Your task to perform on an android device: turn off priority inbox in the gmail app Image 0: 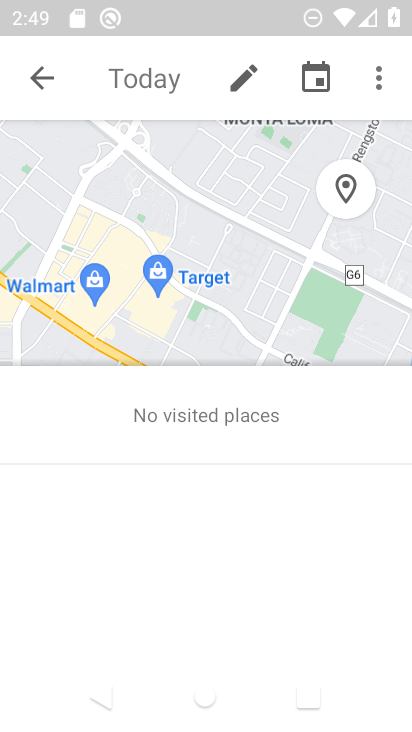
Step 0: press back button
Your task to perform on an android device: turn off priority inbox in the gmail app Image 1: 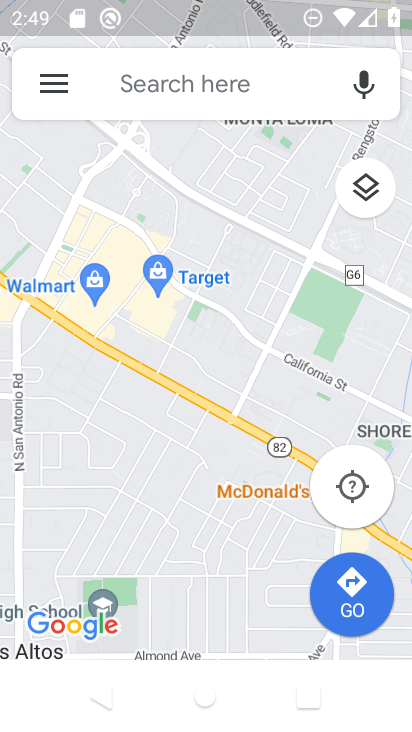
Step 1: press back button
Your task to perform on an android device: turn off priority inbox in the gmail app Image 2: 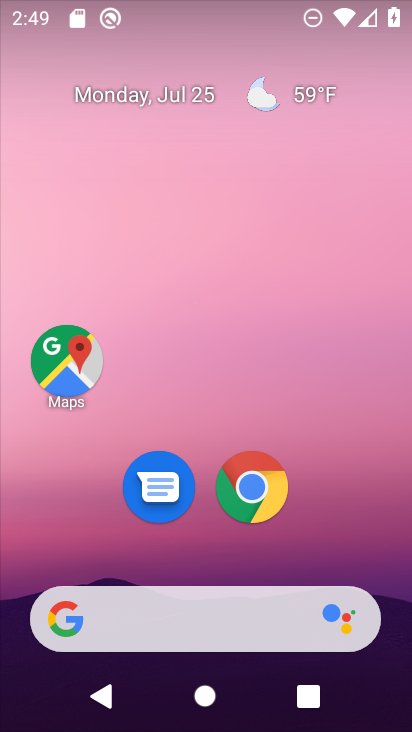
Step 2: drag from (194, 562) to (198, 26)
Your task to perform on an android device: turn off priority inbox in the gmail app Image 3: 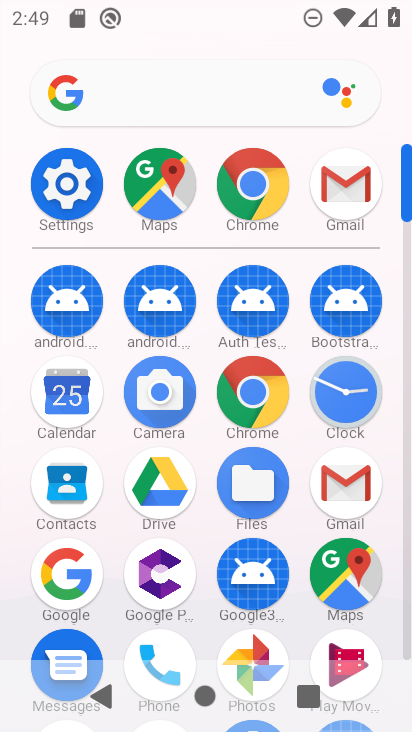
Step 3: click (342, 180)
Your task to perform on an android device: turn off priority inbox in the gmail app Image 4: 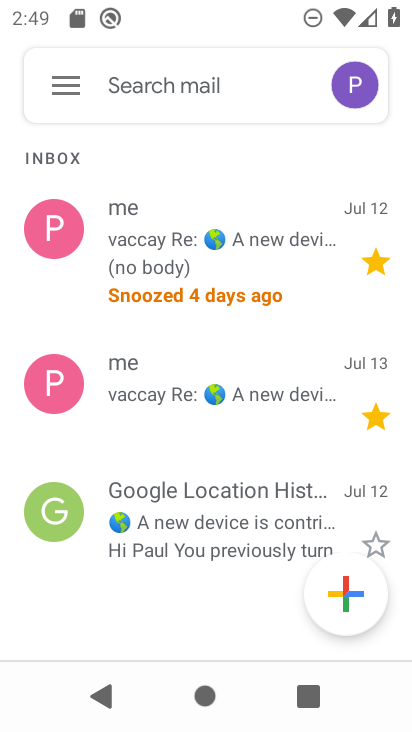
Step 4: click (56, 58)
Your task to perform on an android device: turn off priority inbox in the gmail app Image 5: 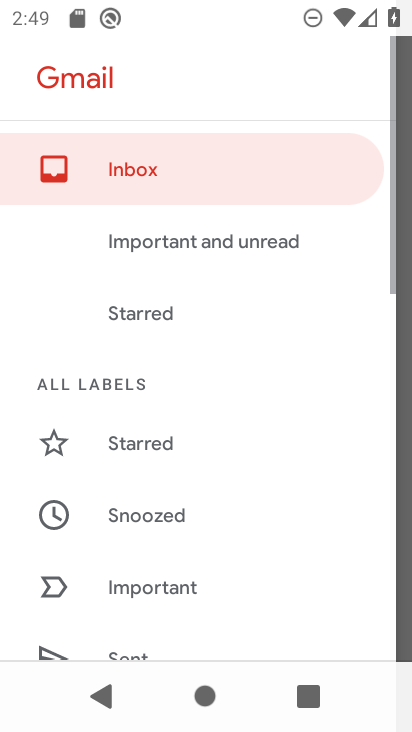
Step 5: drag from (122, 552) to (238, 158)
Your task to perform on an android device: turn off priority inbox in the gmail app Image 6: 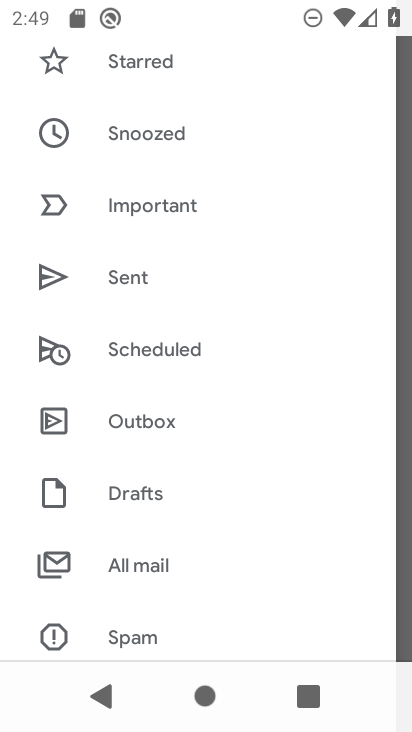
Step 6: drag from (164, 623) to (242, 76)
Your task to perform on an android device: turn off priority inbox in the gmail app Image 7: 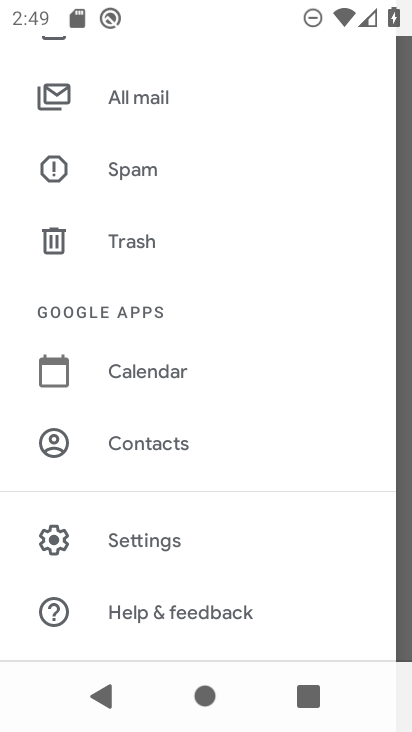
Step 7: click (143, 549)
Your task to perform on an android device: turn off priority inbox in the gmail app Image 8: 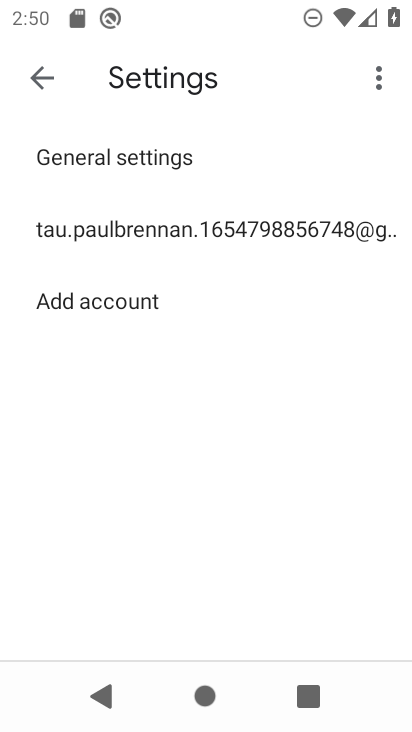
Step 8: click (175, 231)
Your task to perform on an android device: turn off priority inbox in the gmail app Image 9: 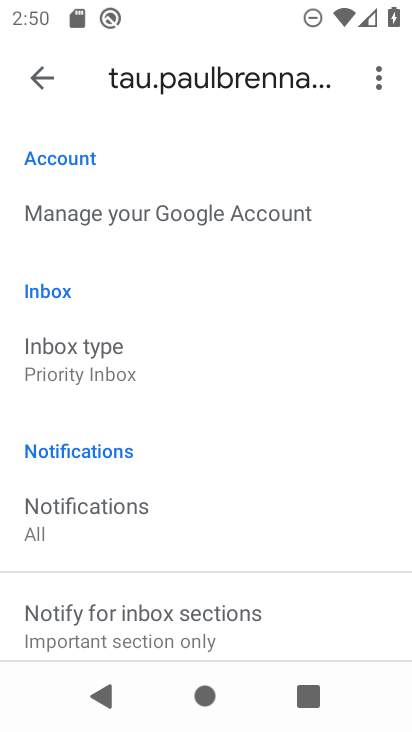
Step 9: click (68, 357)
Your task to perform on an android device: turn off priority inbox in the gmail app Image 10: 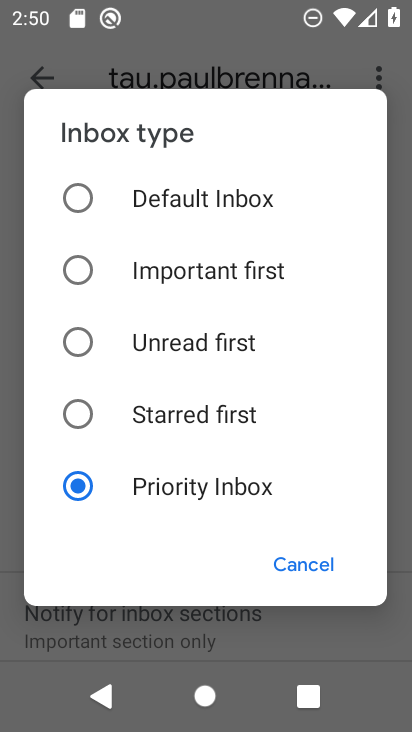
Step 10: click (76, 206)
Your task to perform on an android device: turn off priority inbox in the gmail app Image 11: 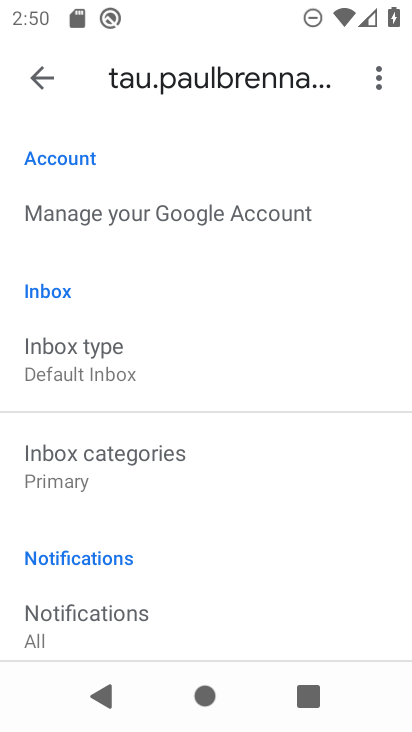
Step 11: task complete